Your task to perform on an android device: Open the phone app and click the voicemail tab. Image 0: 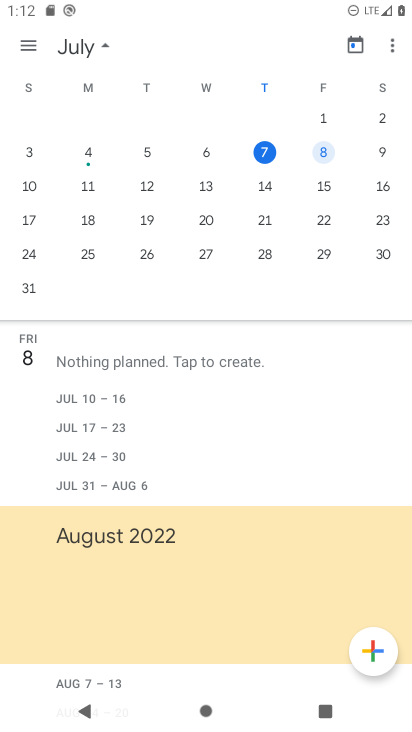
Step 0: press home button
Your task to perform on an android device: Open the phone app and click the voicemail tab. Image 1: 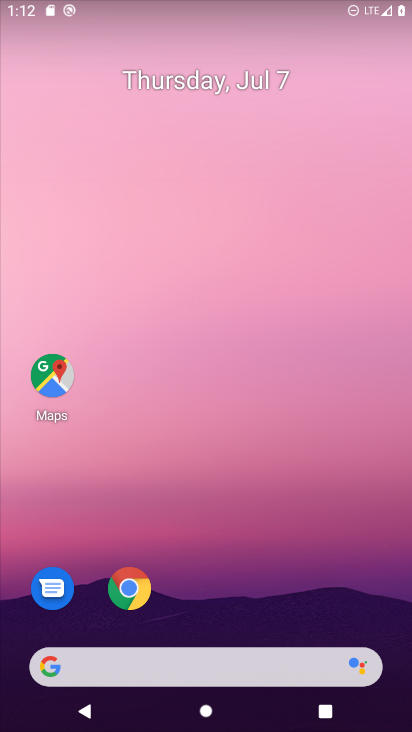
Step 1: drag from (128, 609) to (303, 24)
Your task to perform on an android device: Open the phone app and click the voicemail tab. Image 2: 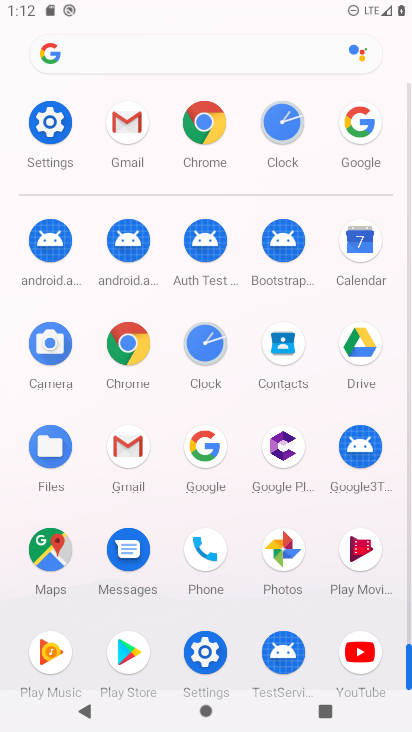
Step 2: click (202, 565)
Your task to perform on an android device: Open the phone app and click the voicemail tab. Image 3: 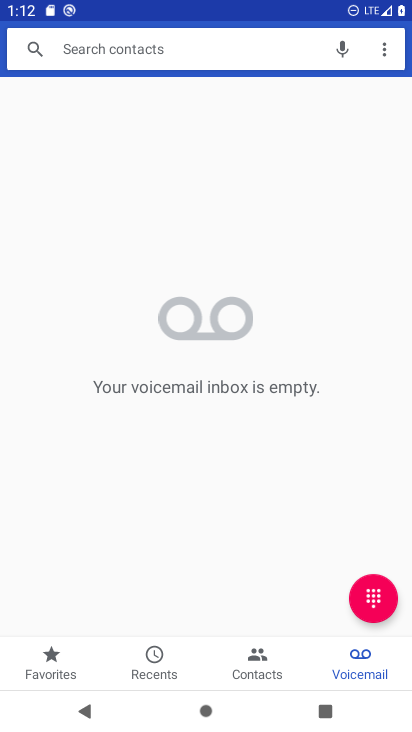
Step 3: click (361, 665)
Your task to perform on an android device: Open the phone app and click the voicemail tab. Image 4: 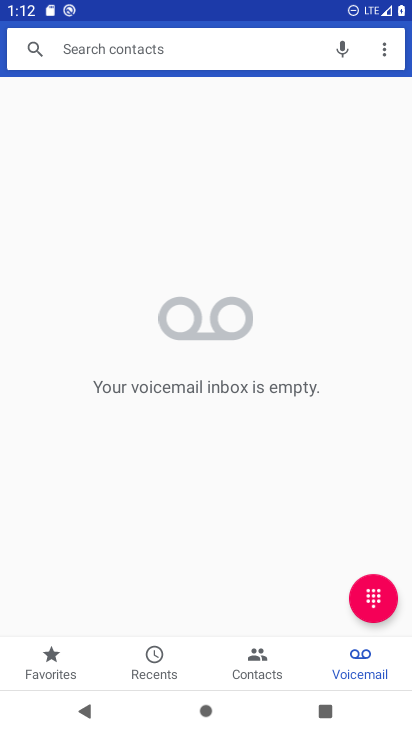
Step 4: task complete